Your task to perform on an android device: Find the nearest electronics store that's open now Image 0: 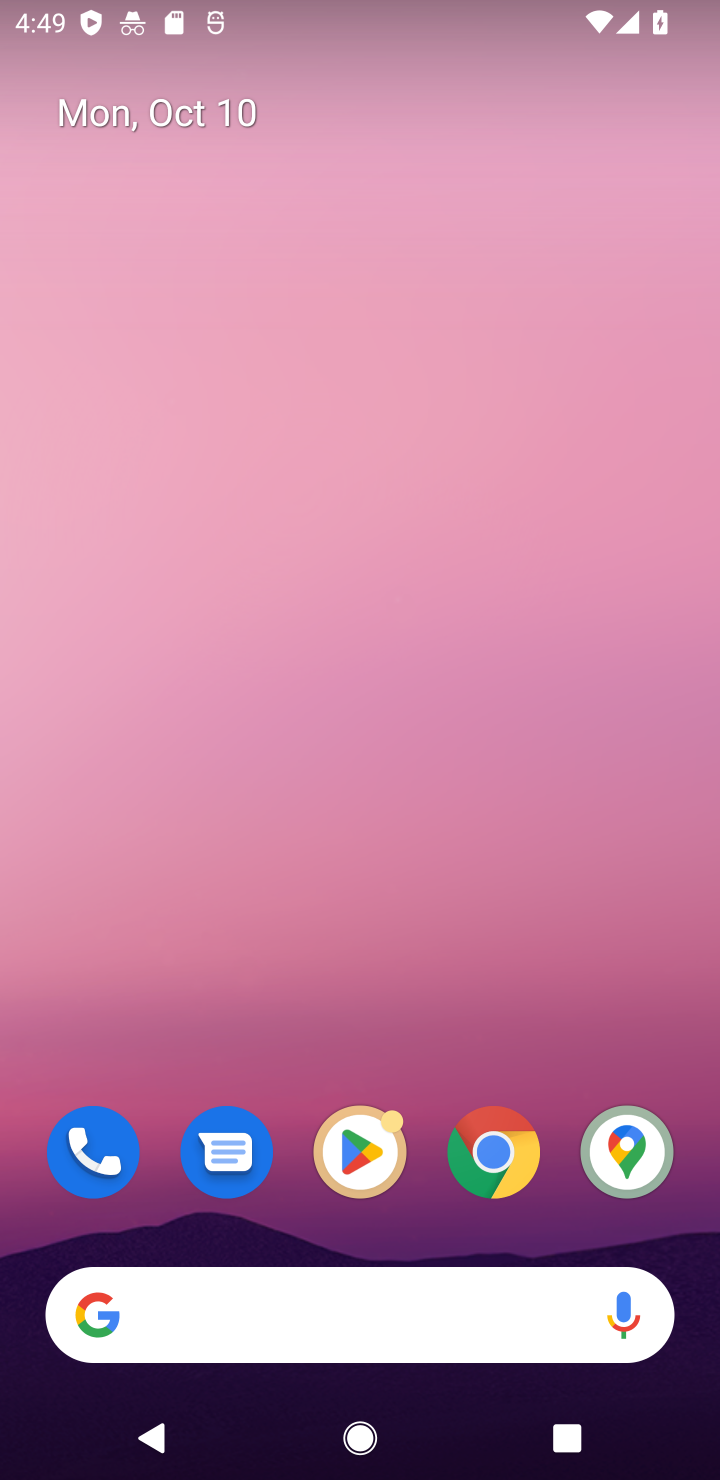
Step 0: click (624, 1143)
Your task to perform on an android device: Find the nearest electronics store that's open now Image 1: 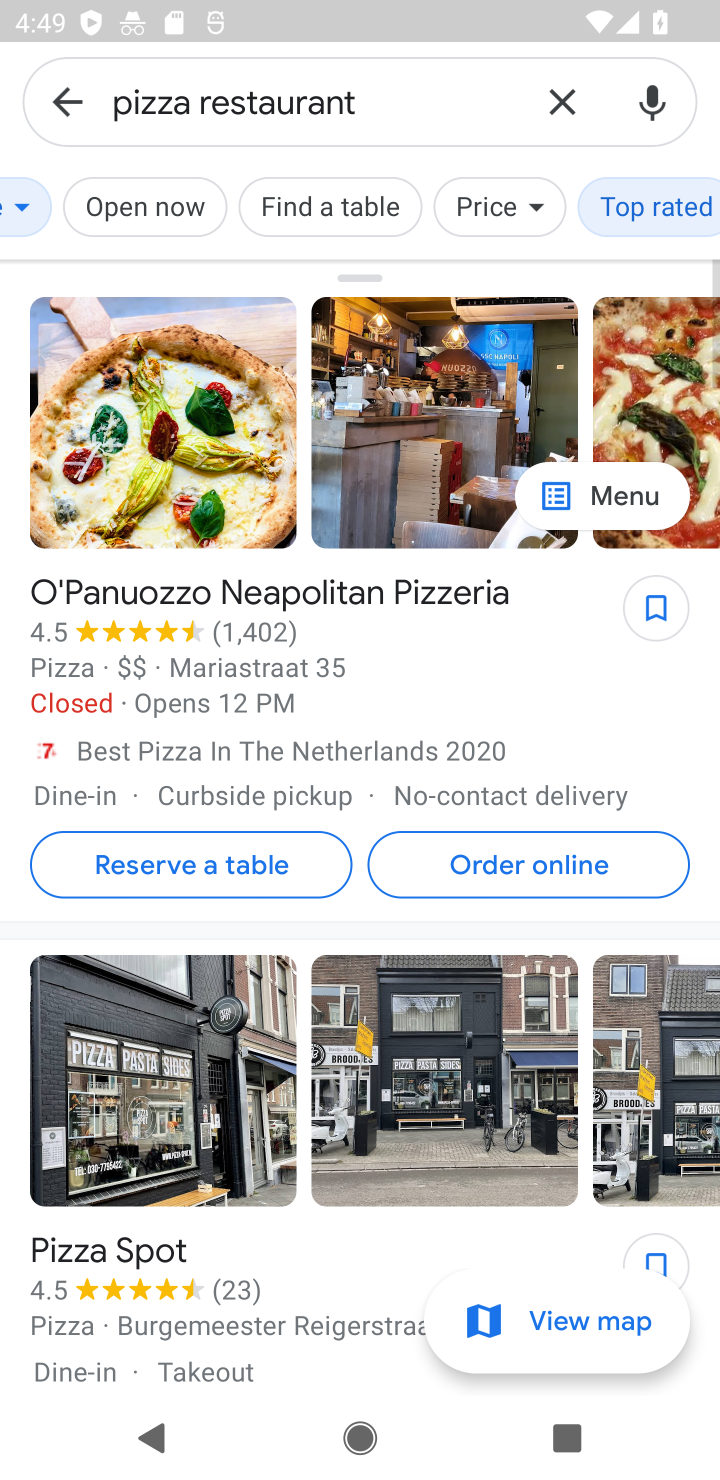
Step 1: click (569, 101)
Your task to perform on an android device: Find the nearest electronics store that's open now Image 2: 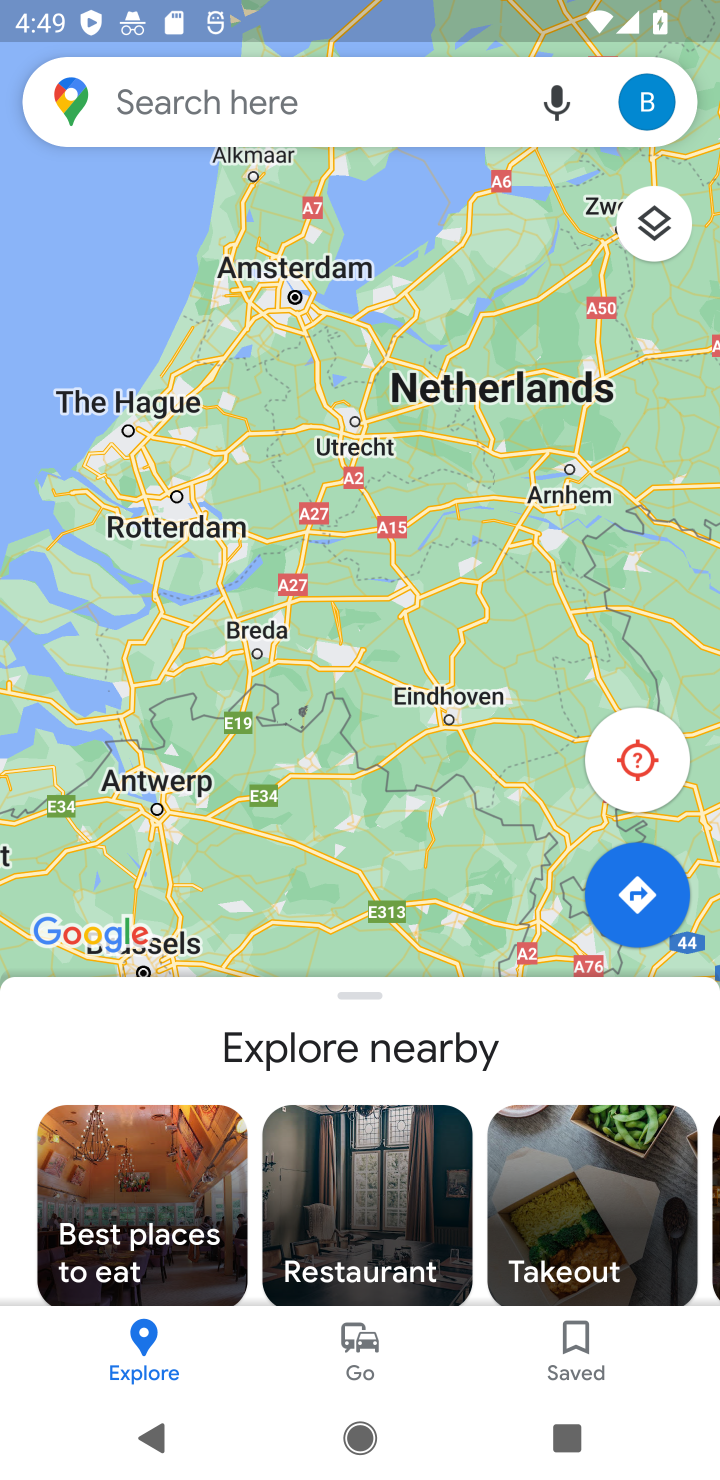
Step 2: click (436, 103)
Your task to perform on an android device: Find the nearest electronics store that's open now Image 3: 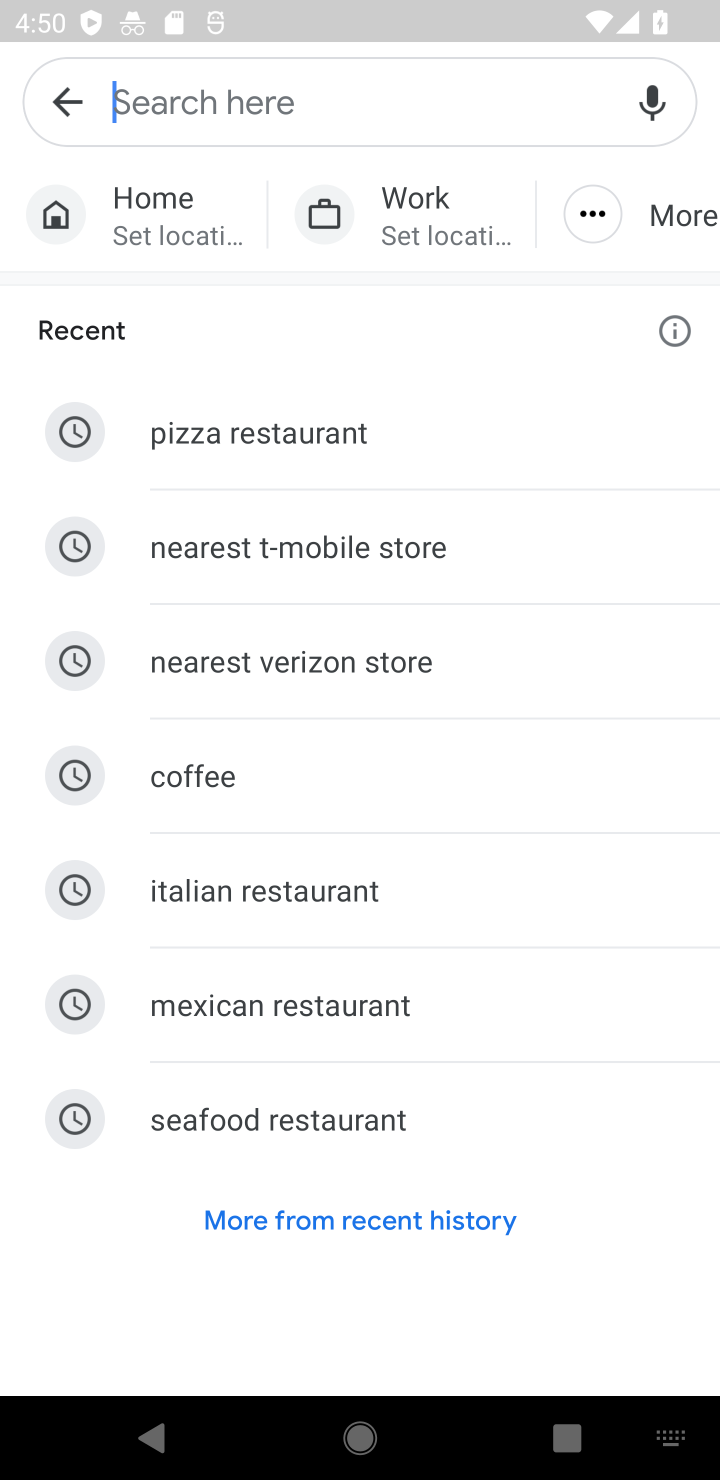
Step 3: type "nearest electronis store"
Your task to perform on an android device: Find the nearest electronics store that's open now Image 4: 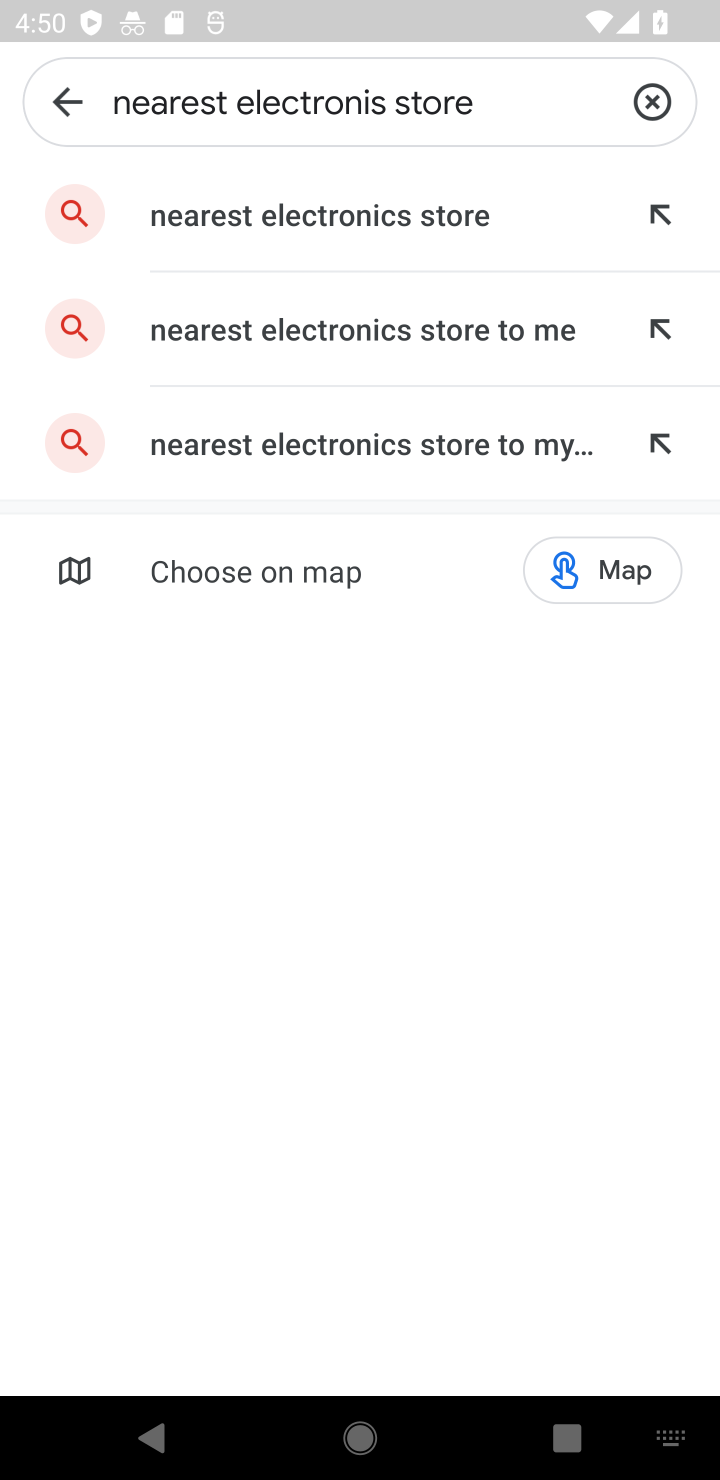
Step 4: click (345, 224)
Your task to perform on an android device: Find the nearest electronics store that's open now Image 5: 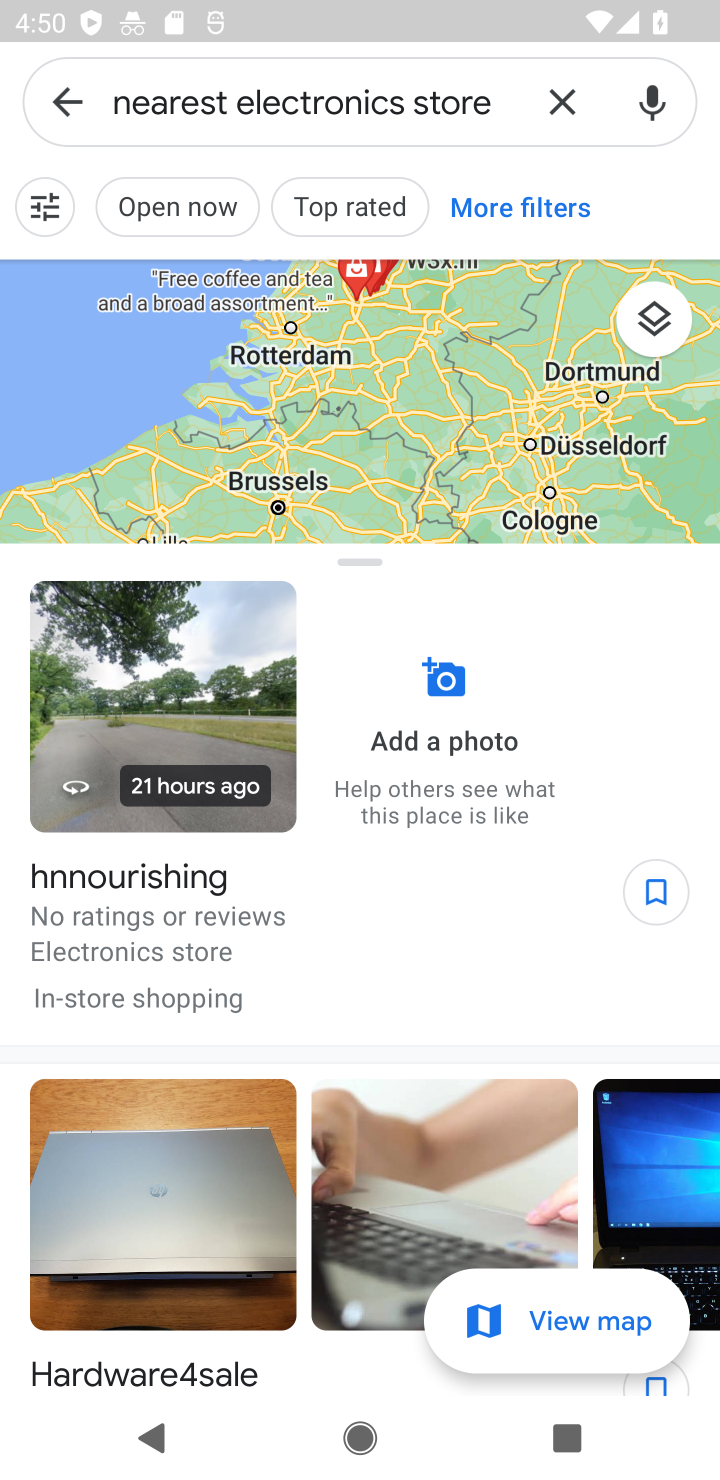
Step 5: click (158, 211)
Your task to perform on an android device: Find the nearest electronics store that's open now Image 6: 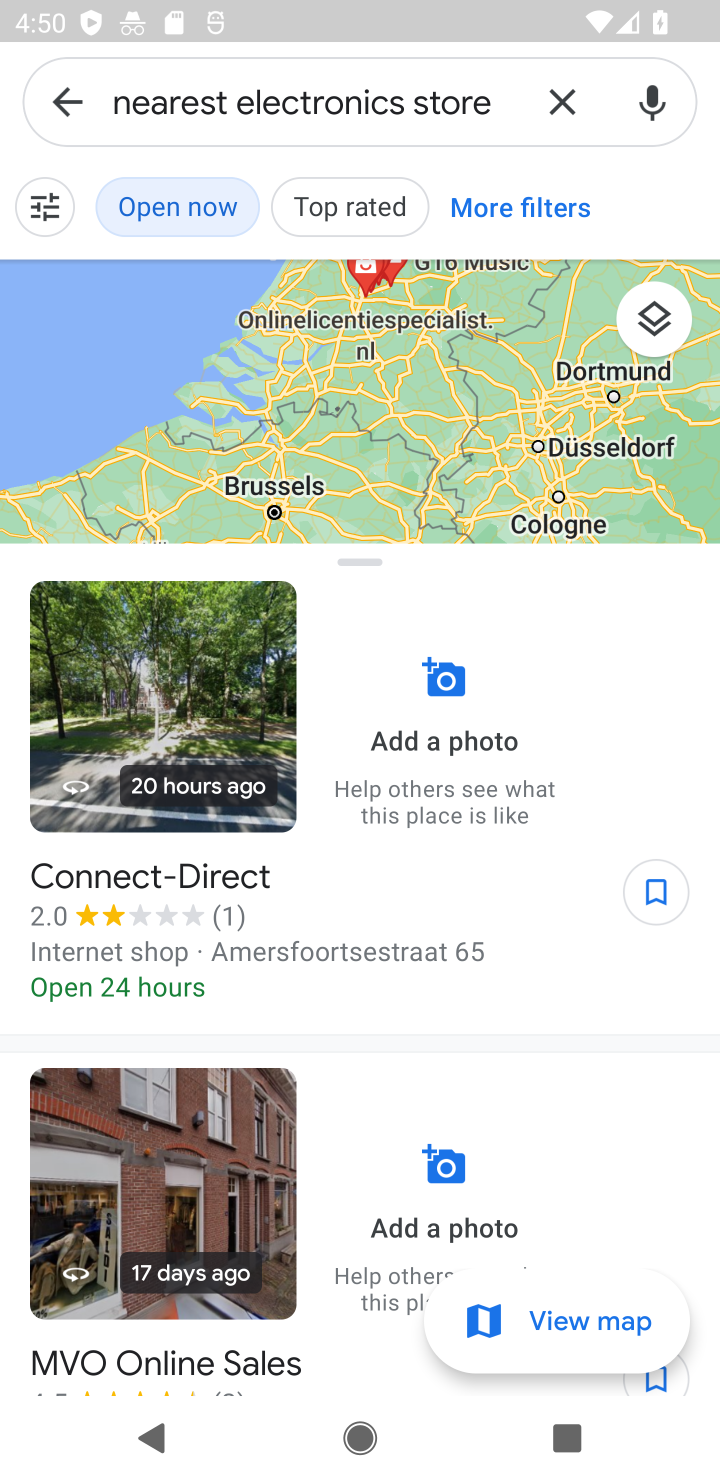
Step 6: task complete